Your task to perform on an android device: View the shopping cart on bestbuy. Add corsair k70 to the cart on bestbuy Image 0: 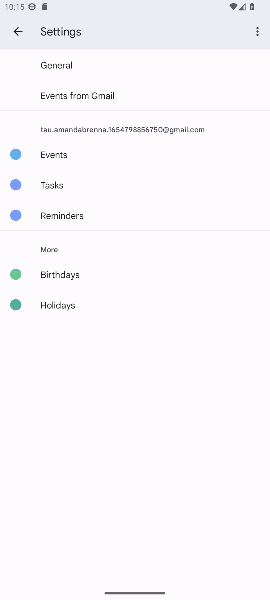
Step 0: press home button
Your task to perform on an android device: View the shopping cart on bestbuy. Add corsair k70 to the cart on bestbuy Image 1: 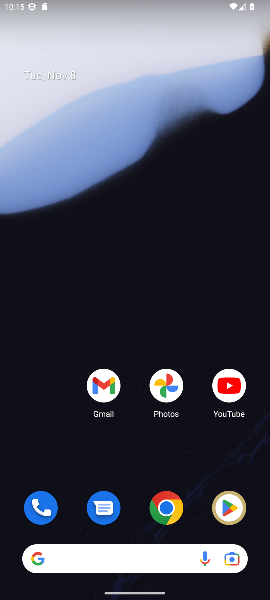
Step 1: click (161, 507)
Your task to perform on an android device: View the shopping cart on bestbuy. Add corsair k70 to the cart on bestbuy Image 2: 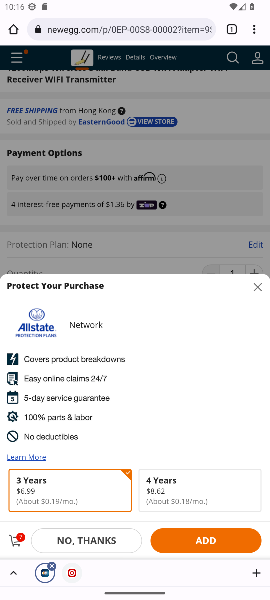
Step 2: press back button
Your task to perform on an android device: View the shopping cart on bestbuy. Add corsair k70 to the cart on bestbuy Image 3: 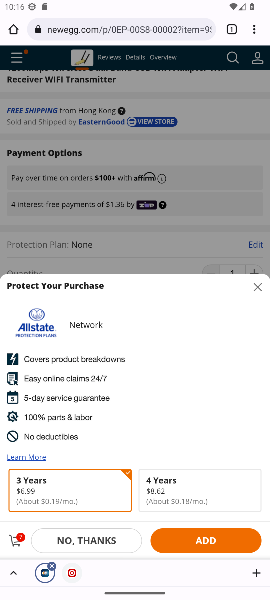
Step 3: click (256, 285)
Your task to perform on an android device: View the shopping cart on bestbuy. Add corsair k70 to the cart on bestbuy Image 4: 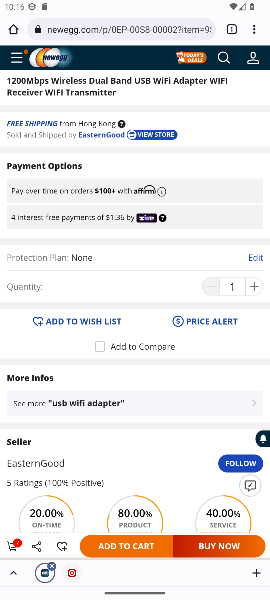
Step 4: click (99, 28)
Your task to perform on an android device: View the shopping cart on bestbuy. Add corsair k70 to the cart on bestbuy Image 5: 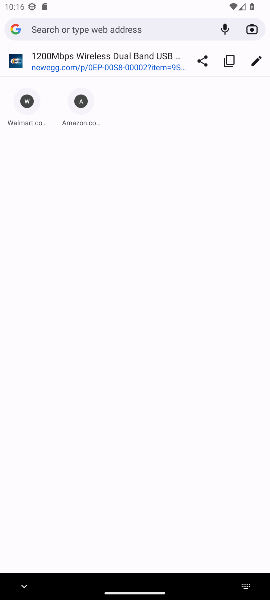
Step 5: type "bestbuy"
Your task to perform on an android device: View the shopping cart on bestbuy. Add corsair k70 to the cart on bestbuy Image 6: 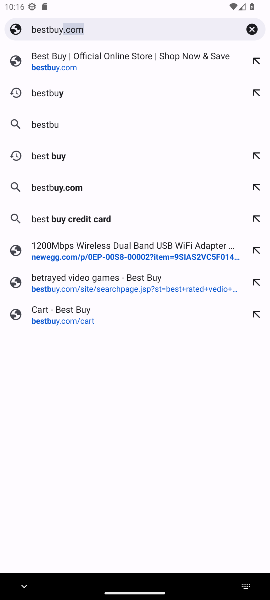
Step 6: type ""
Your task to perform on an android device: View the shopping cart on bestbuy. Add corsair k70 to the cart on bestbuy Image 7: 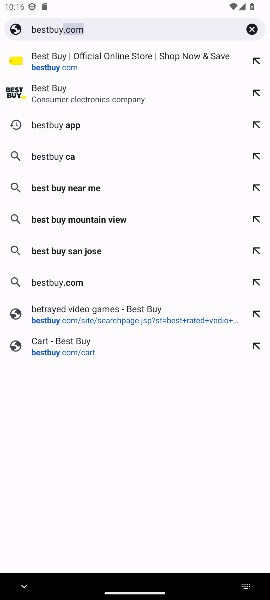
Step 7: click (33, 91)
Your task to perform on an android device: View the shopping cart on bestbuy. Add corsair k70 to the cart on bestbuy Image 8: 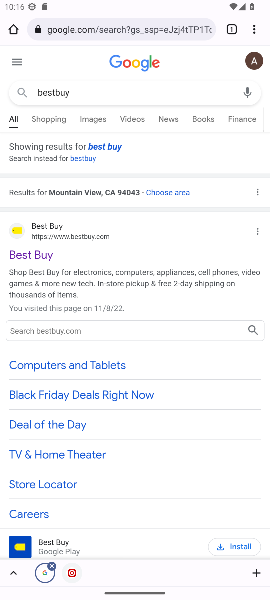
Step 8: click (31, 261)
Your task to perform on an android device: View the shopping cart on bestbuy. Add corsair k70 to the cart on bestbuy Image 9: 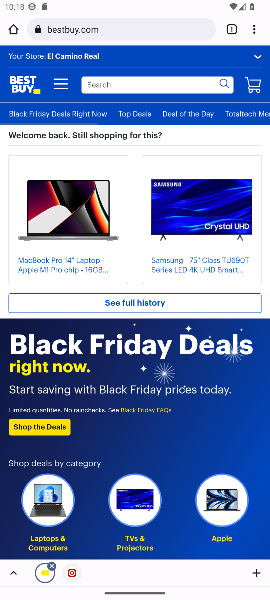
Step 9: click (124, 85)
Your task to perform on an android device: View the shopping cart on bestbuy. Add corsair k70 to the cart on bestbuy Image 10: 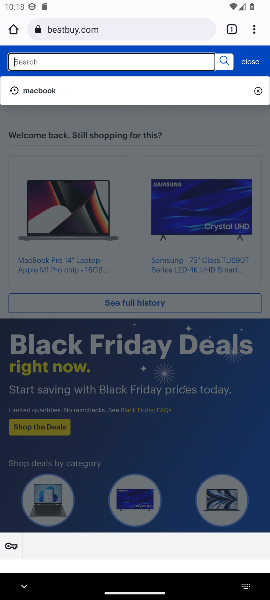
Step 10: type "corsair k70"
Your task to perform on an android device: View the shopping cart on bestbuy. Add corsair k70 to the cart on bestbuy Image 11: 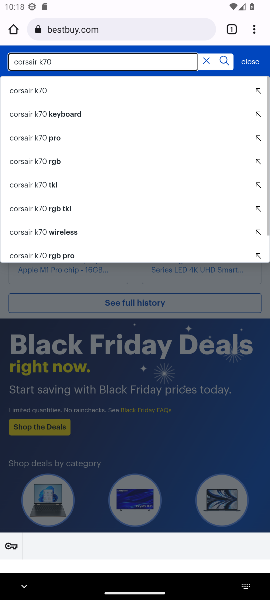
Step 11: click (10, 90)
Your task to perform on an android device: View the shopping cart on bestbuy. Add corsair k70 to the cart on bestbuy Image 12: 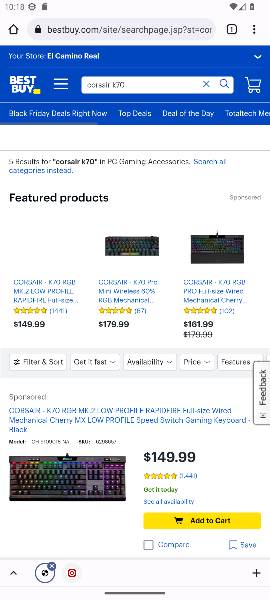
Step 12: click (64, 482)
Your task to perform on an android device: View the shopping cart on bestbuy. Add corsair k70 to the cart on bestbuy Image 13: 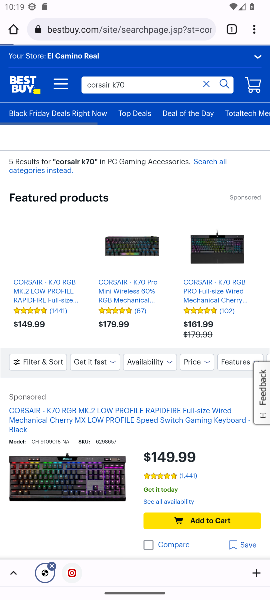
Step 13: click (82, 456)
Your task to perform on an android device: View the shopping cart on bestbuy. Add corsair k70 to the cart on bestbuy Image 14: 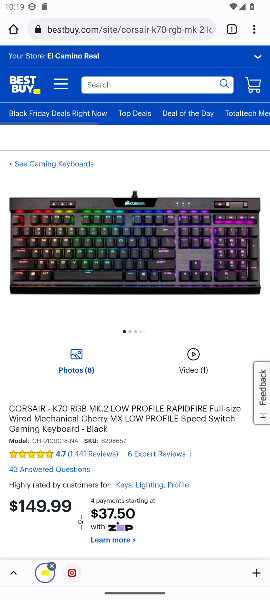
Step 14: drag from (162, 466) to (183, 281)
Your task to perform on an android device: View the shopping cart on bestbuy. Add corsair k70 to the cart on bestbuy Image 15: 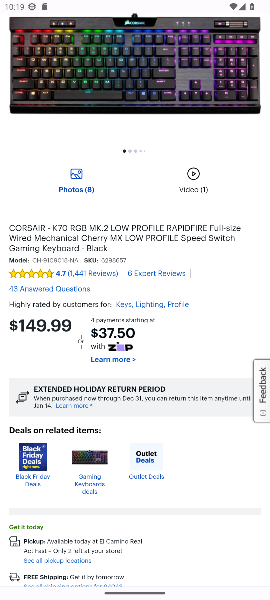
Step 15: drag from (135, 432) to (188, 157)
Your task to perform on an android device: View the shopping cart on bestbuy. Add corsair k70 to the cart on bestbuy Image 16: 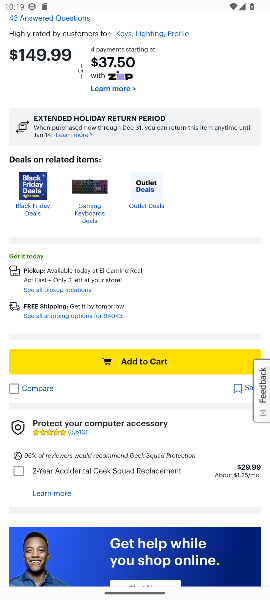
Step 16: click (145, 362)
Your task to perform on an android device: View the shopping cart on bestbuy. Add corsair k70 to the cart on bestbuy Image 17: 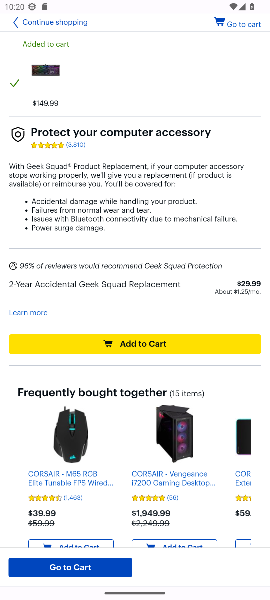
Step 17: click (137, 341)
Your task to perform on an android device: View the shopping cart on bestbuy. Add corsair k70 to the cart on bestbuy Image 18: 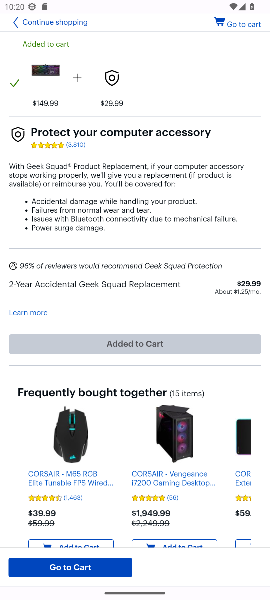
Step 18: click (60, 568)
Your task to perform on an android device: View the shopping cart on bestbuy. Add corsair k70 to the cart on bestbuy Image 19: 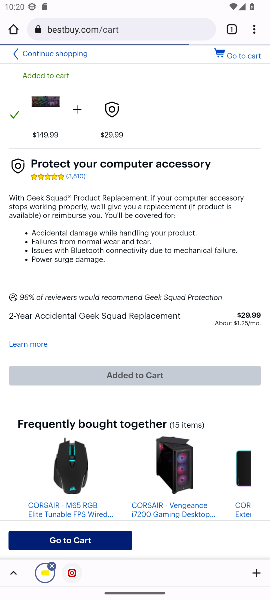
Step 19: task complete